Your task to perform on an android device: Open network settings Image 0: 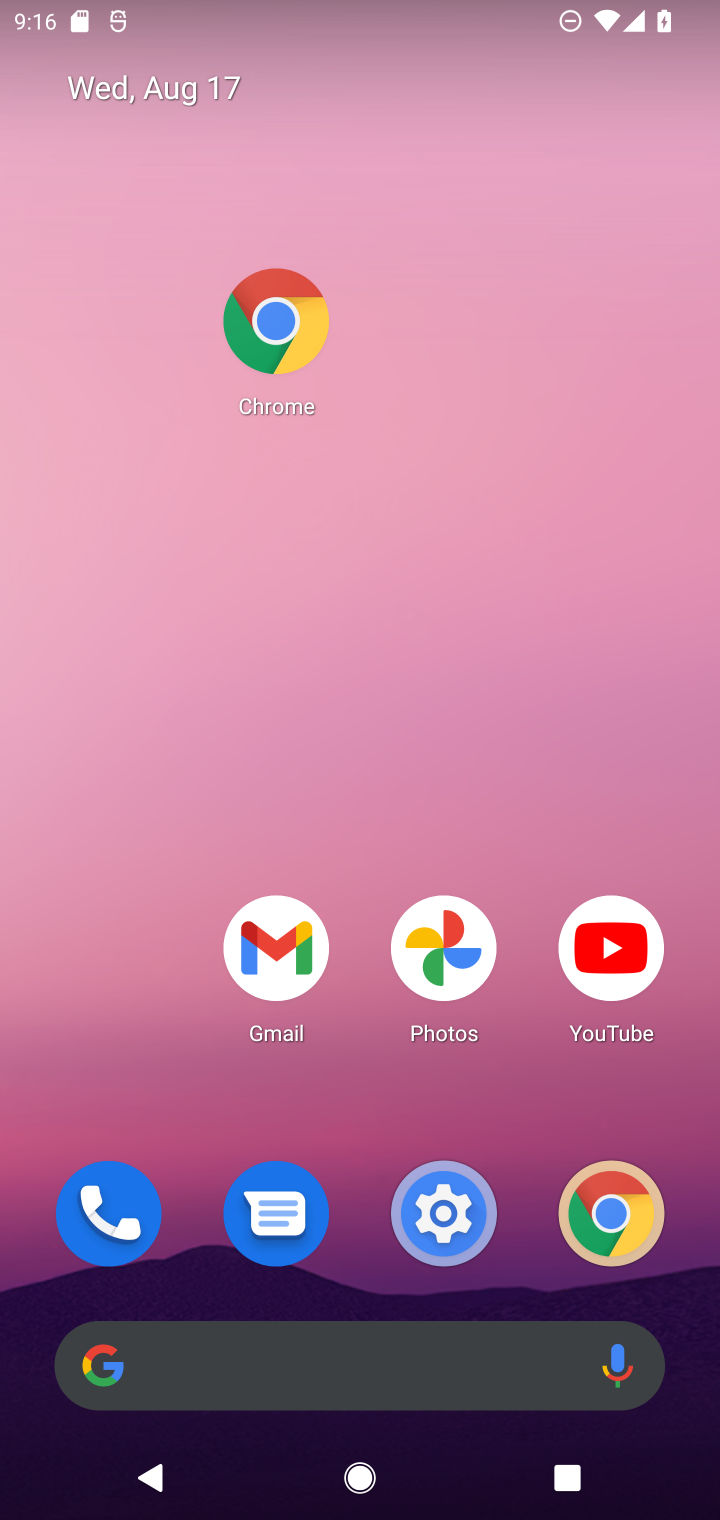
Step 0: click (414, 1208)
Your task to perform on an android device: Open network settings Image 1: 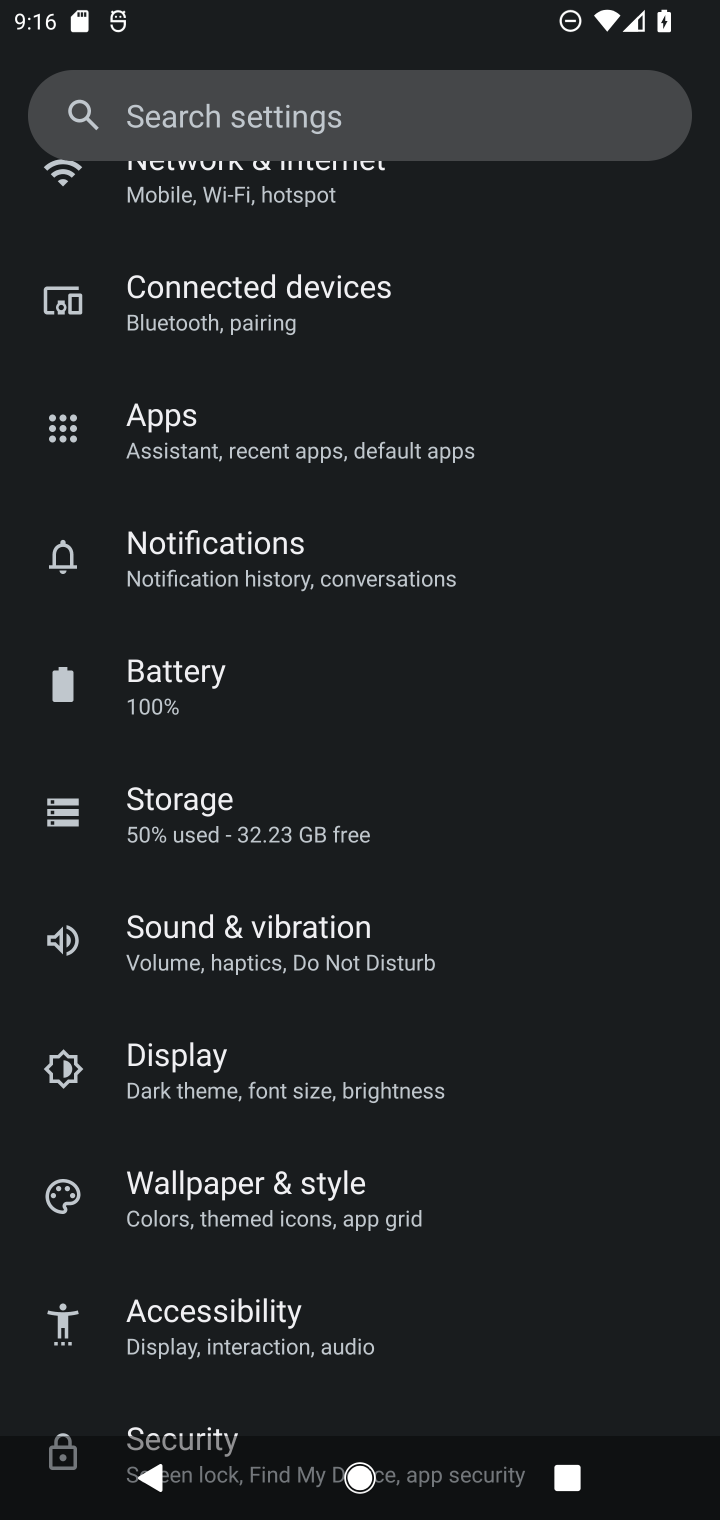
Step 1: click (256, 177)
Your task to perform on an android device: Open network settings Image 2: 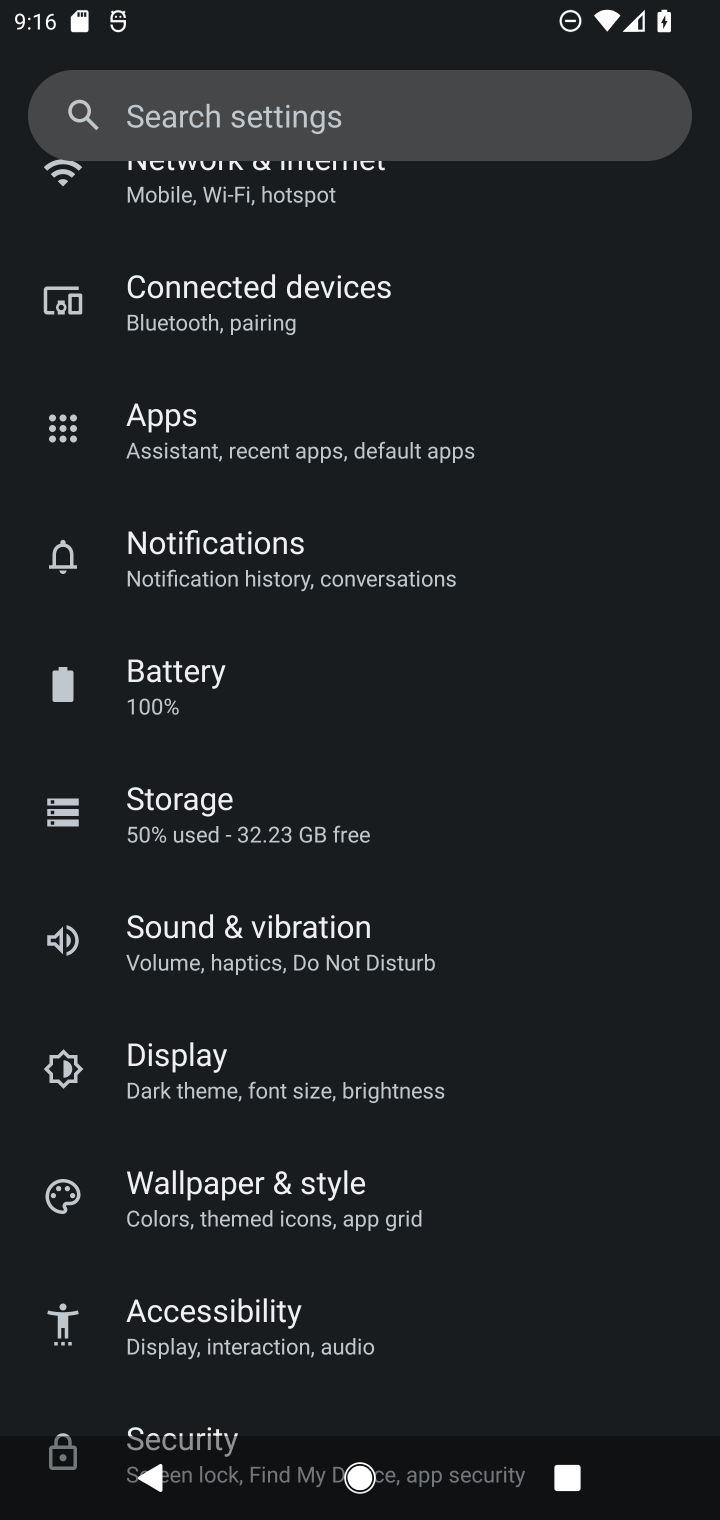
Step 2: click (293, 186)
Your task to perform on an android device: Open network settings Image 3: 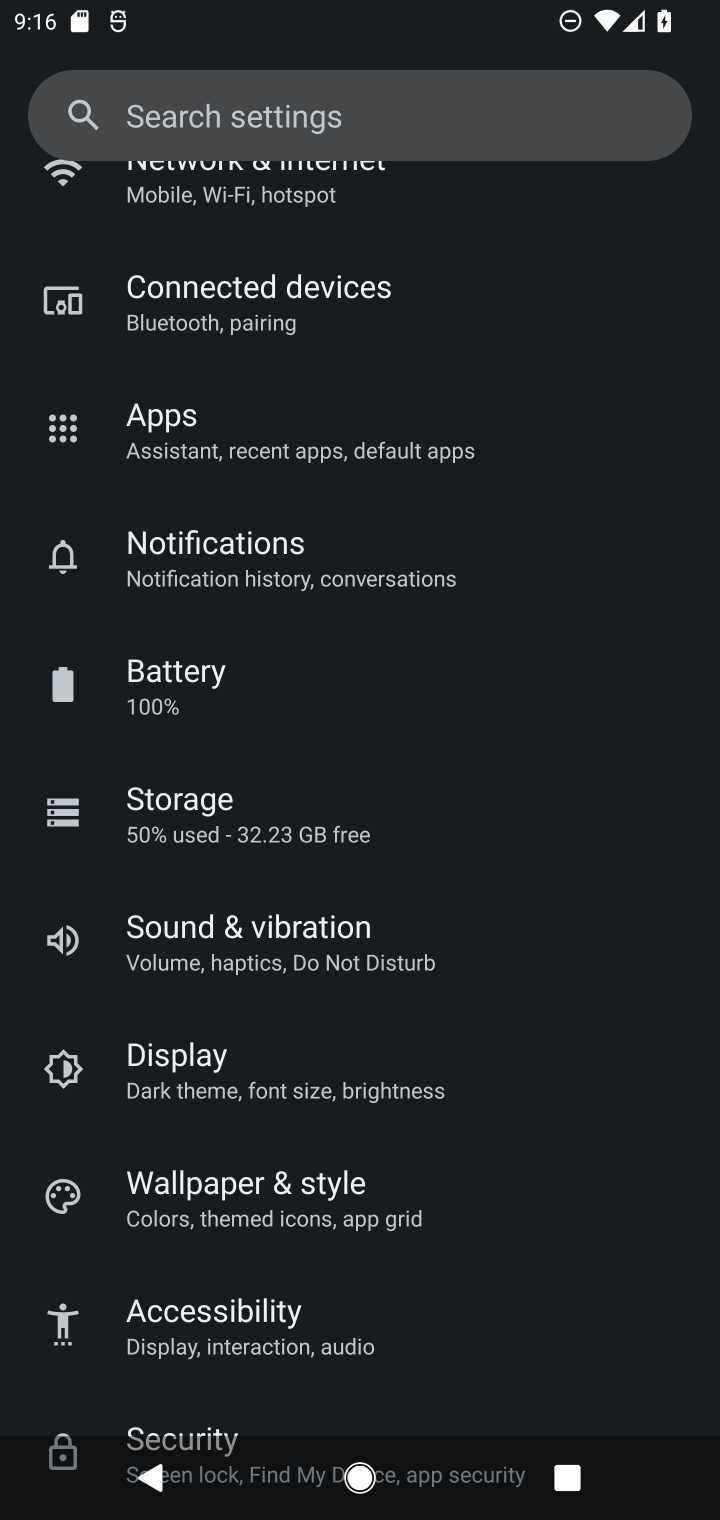
Step 3: task complete